Your task to perform on an android device: toggle data saver in the chrome app Image 0: 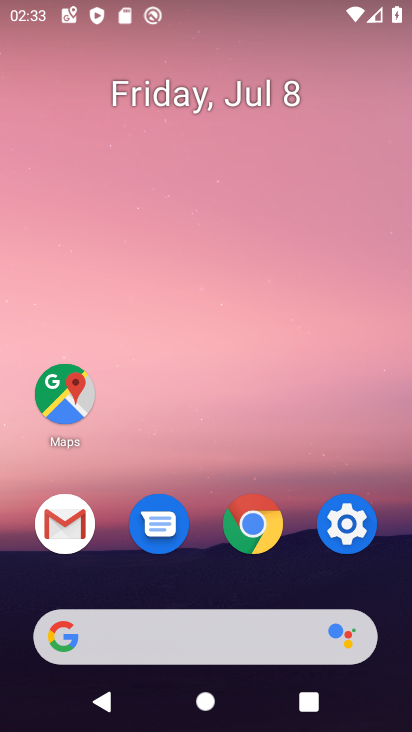
Step 0: click (240, 530)
Your task to perform on an android device: toggle data saver in the chrome app Image 1: 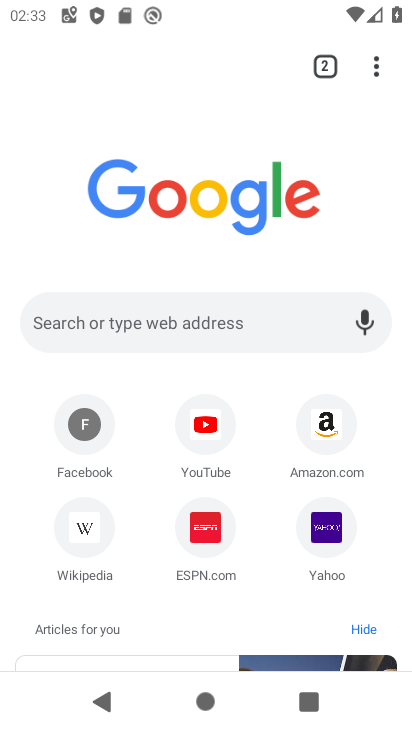
Step 1: click (376, 73)
Your task to perform on an android device: toggle data saver in the chrome app Image 2: 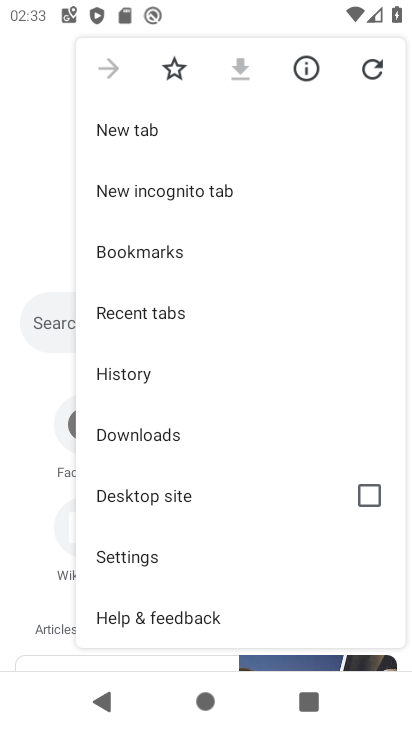
Step 2: click (145, 556)
Your task to perform on an android device: toggle data saver in the chrome app Image 3: 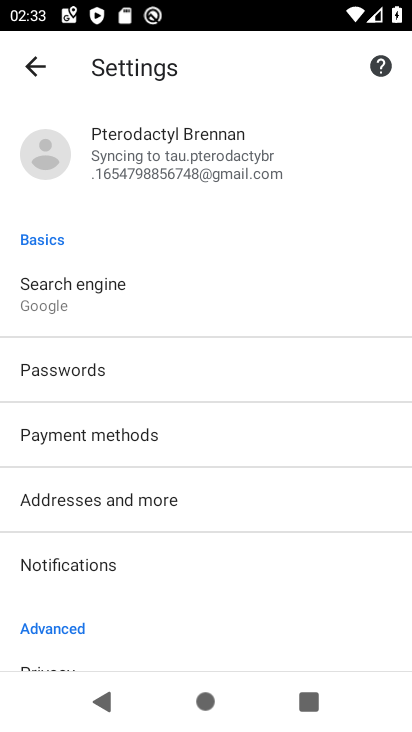
Step 3: drag from (122, 590) to (221, 192)
Your task to perform on an android device: toggle data saver in the chrome app Image 4: 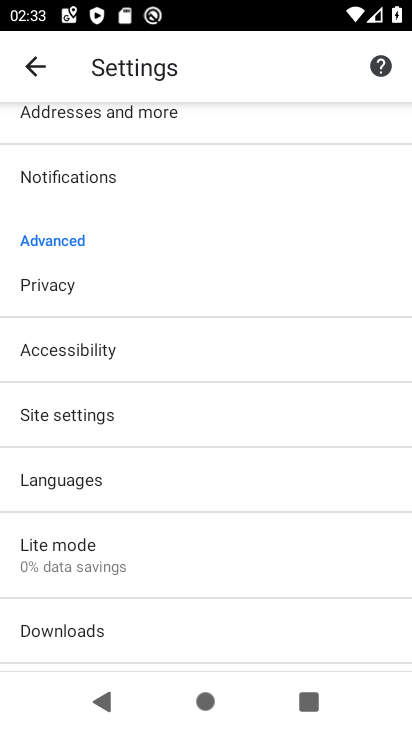
Step 4: click (70, 545)
Your task to perform on an android device: toggle data saver in the chrome app Image 5: 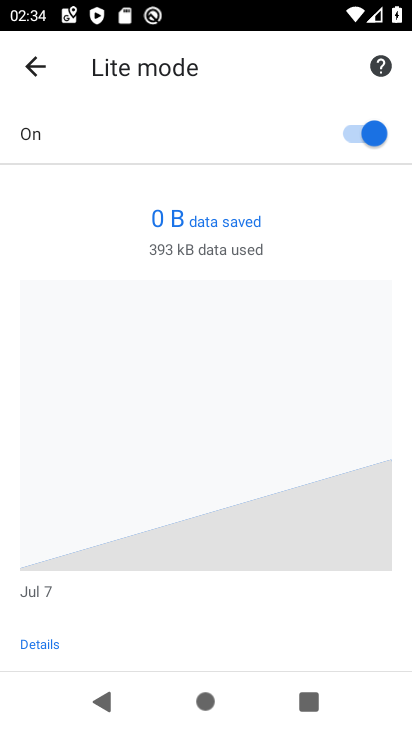
Step 5: task complete